Your task to perform on an android device: move a message to another label in the gmail app Image 0: 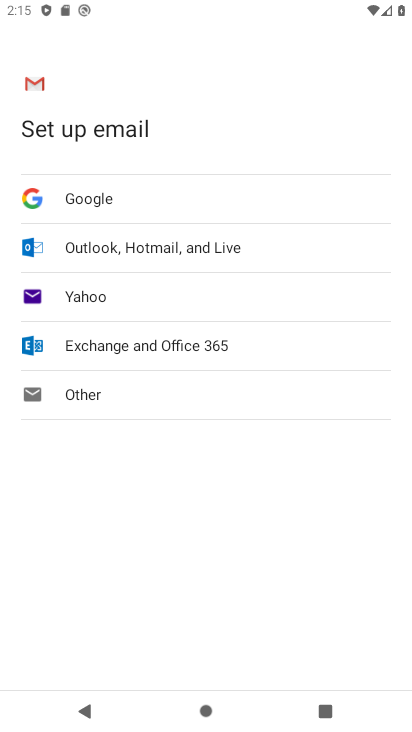
Step 0: press back button
Your task to perform on an android device: move a message to another label in the gmail app Image 1: 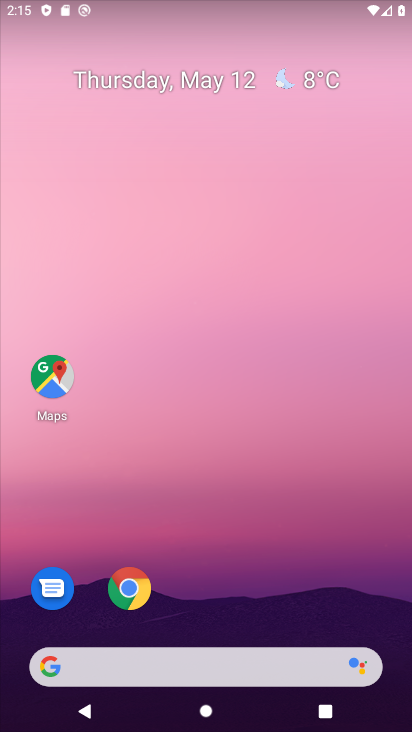
Step 1: drag from (245, 523) to (219, 2)
Your task to perform on an android device: move a message to another label in the gmail app Image 2: 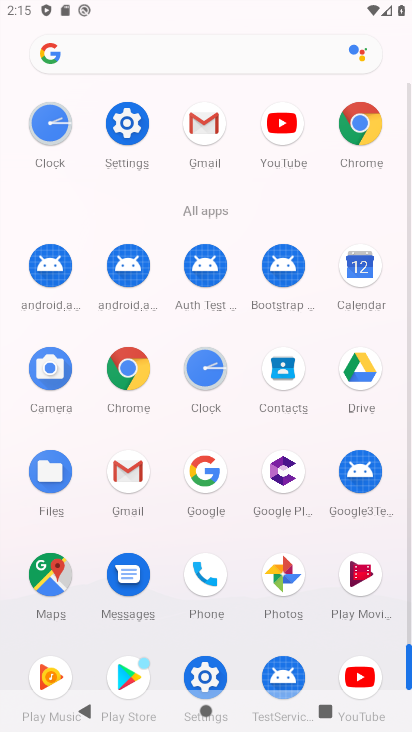
Step 2: drag from (14, 499) to (16, 227)
Your task to perform on an android device: move a message to another label in the gmail app Image 3: 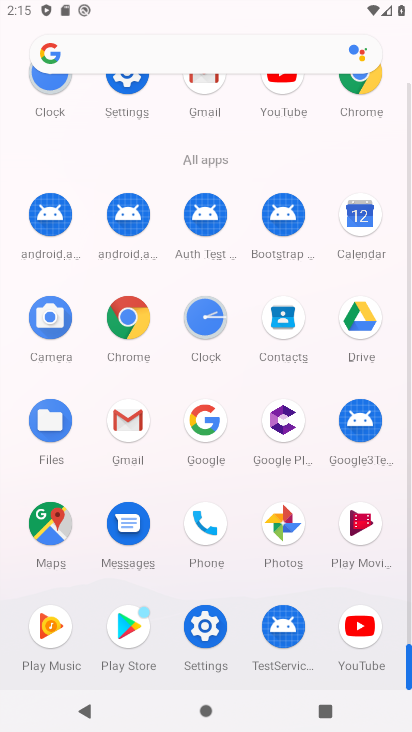
Step 3: drag from (2, 463) to (0, 149)
Your task to perform on an android device: move a message to another label in the gmail app Image 4: 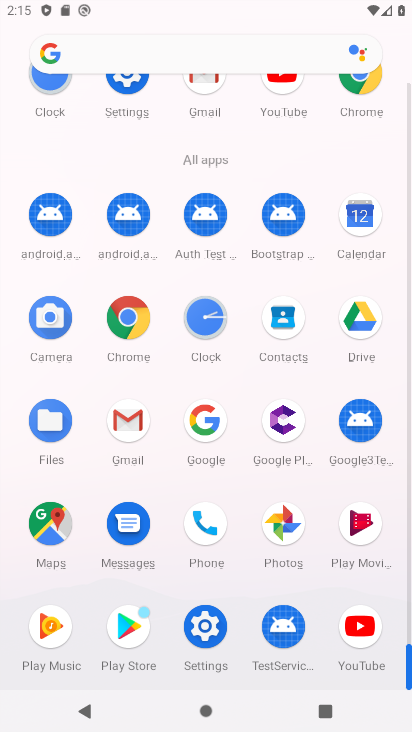
Step 4: click (129, 415)
Your task to perform on an android device: move a message to another label in the gmail app Image 5: 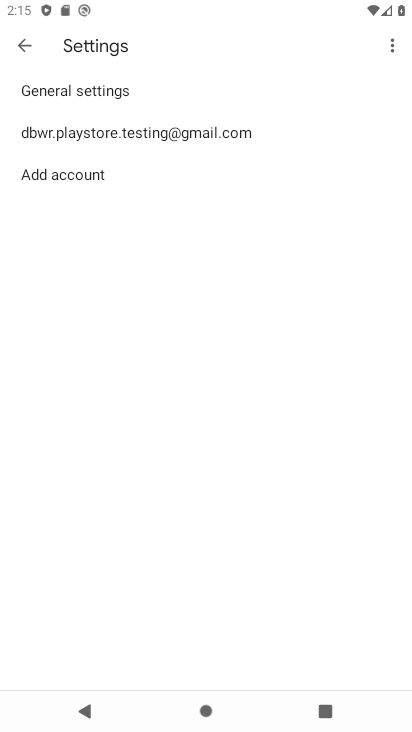
Step 5: click (14, 35)
Your task to perform on an android device: move a message to another label in the gmail app Image 6: 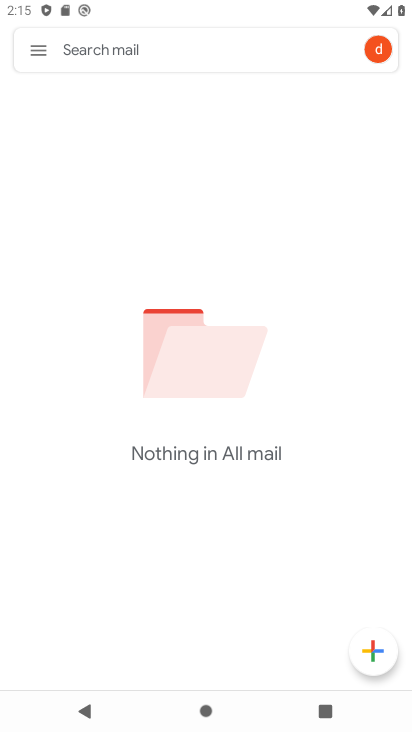
Step 6: click (31, 48)
Your task to perform on an android device: move a message to another label in the gmail app Image 7: 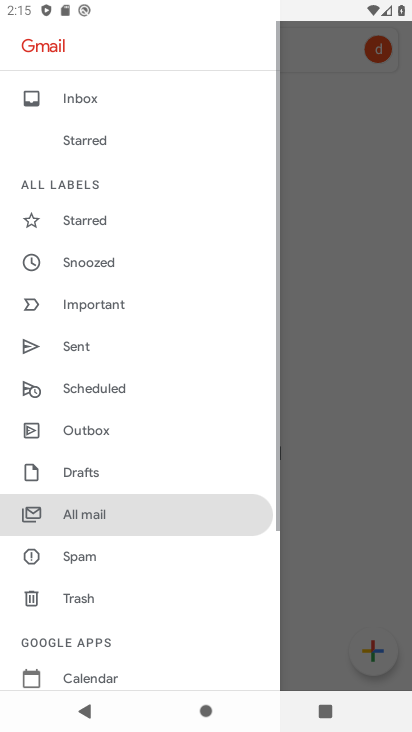
Step 7: drag from (140, 241) to (158, 568)
Your task to perform on an android device: move a message to another label in the gmail app Image 8: 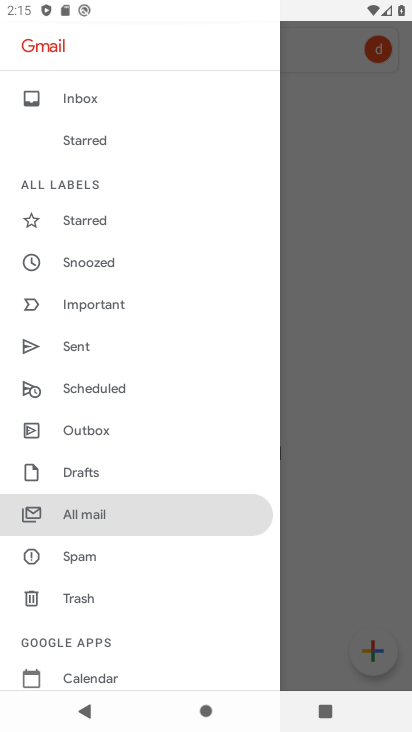
Step 8: click (79, 96)
Your task to perform on an android device: move a message to another label in the gmail app Image 9: 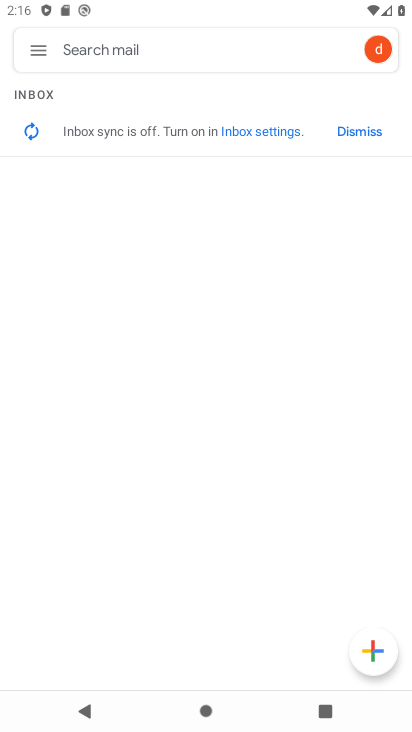
Step 9: click (39, 58)
Your task to perform on an android device: move a message to another label in the gmail app Image 10: 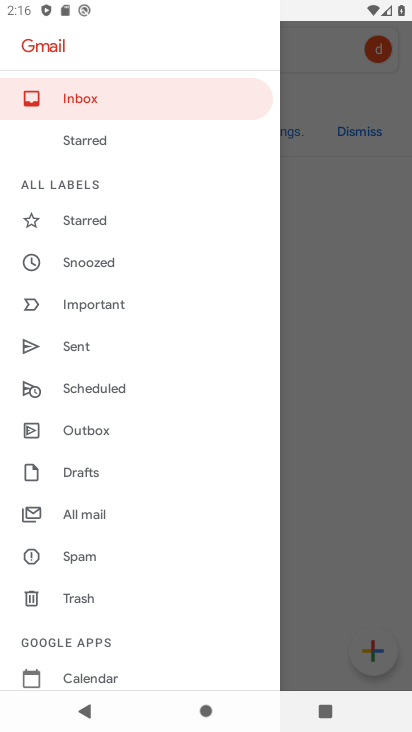
Step 10: click (111, 265)
Your task to perform on an android device: move a message to another label in the gmail app Image 11: 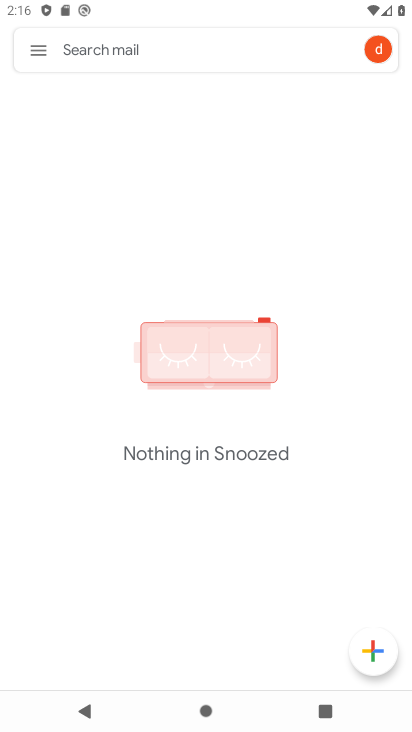
Step 11: click (41, 53)
Your task to perform on an android device: move a message to another label in the gmail app Image 12: 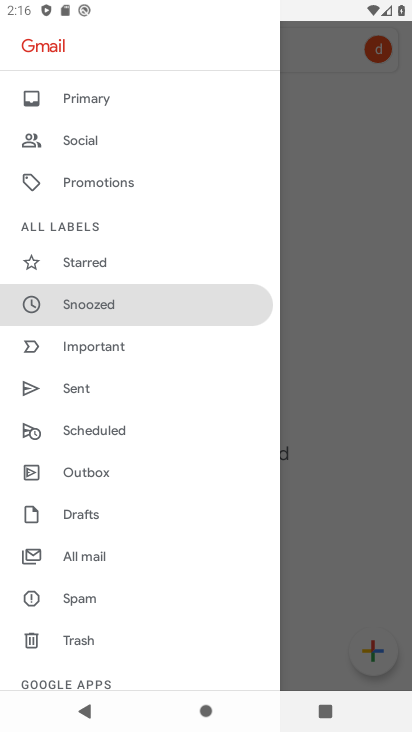
Step 12: click (120, 347)
Your task to perform on an android device: move a message to another label in the gmail app Image 13: 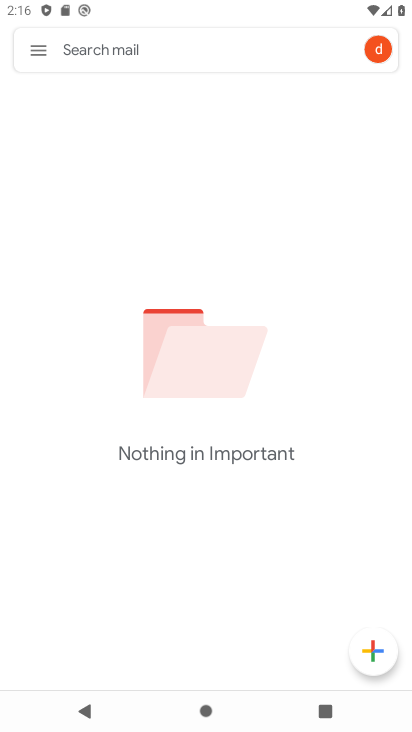
Step 13: click (45, 58)
Your task to perform on an android device: move a message to another label in the gmail app Image 14: 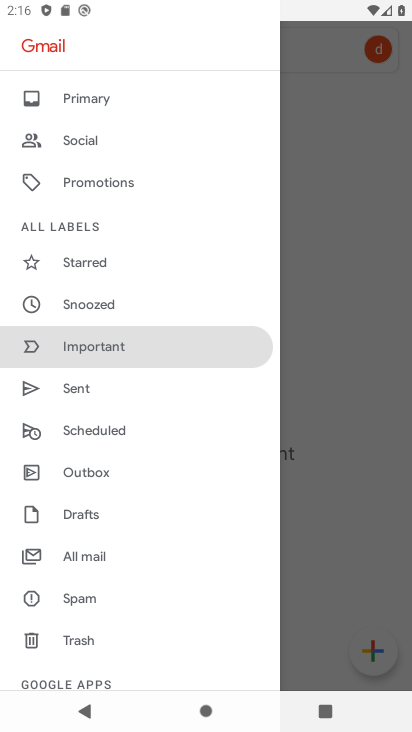
Step 14: drag from (141, 157) to (163, 532)
Your task to perform on an android device: move a message to another label in the gmail app Image 15: 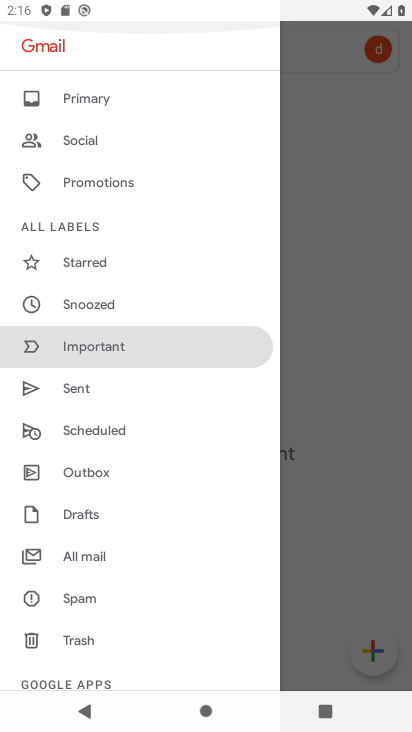
Step 15: drag from (155, 516) to (173, 78)
Your task to perform on an android device: move a message to another label in the gmail app Image 16: 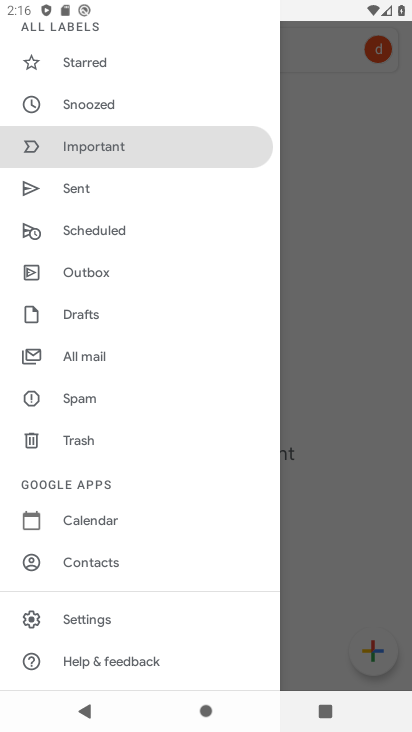
Step 16: click (105, 350)
Your task to perform on an android device: move a message to another label in the gmail app Image 17: 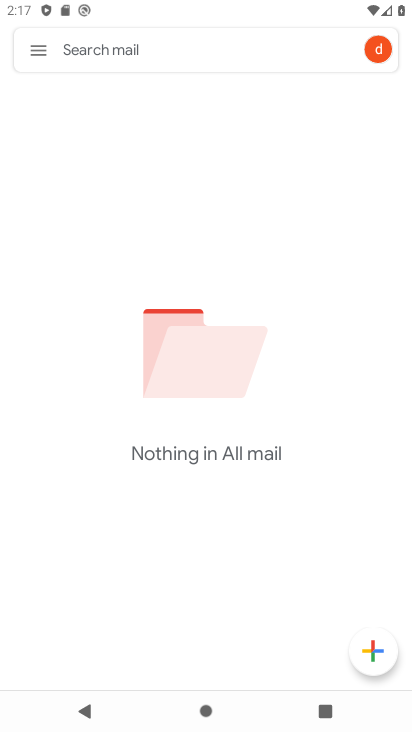
Step 17: click (42, 47)
Your task to perform on an android device: move a message to another label in the gmail app Image 18: 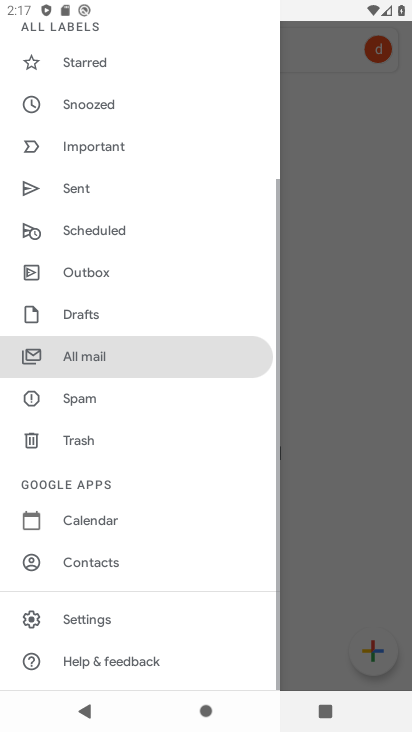
Step 18: drag from (165, 211) to (179, 466)
Your task to perform on an android device: move a message to another label in the gmail app Image 19: 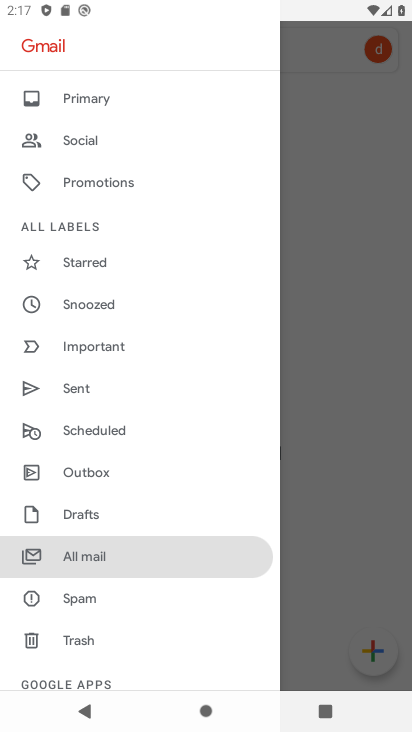
Step 19: drag from (138, 179) to (150, 544)
Your task to perform on an android device: move a message to another label in the gmail app Image 20: 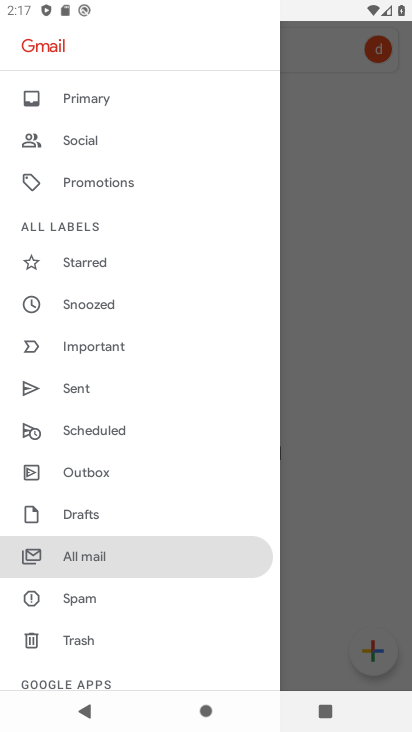
Step 20: click (117, 173)
Your task to perform on an android device: move a message to another label in the gmail app Image 21: 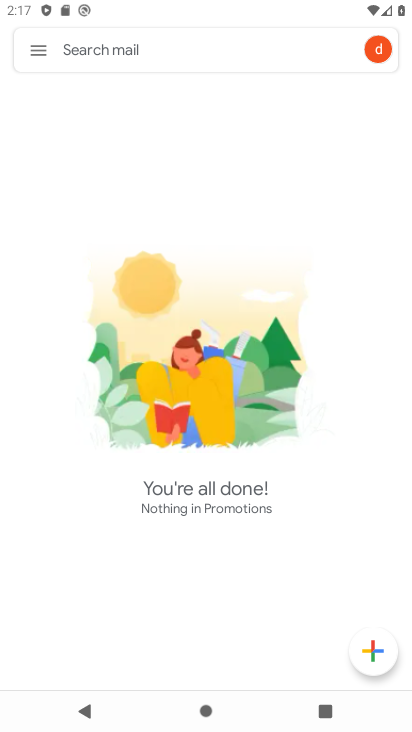
Step 21: click (51, 49)
Your task to perform on an android device: move a message to another label in the gmail app Image 22: 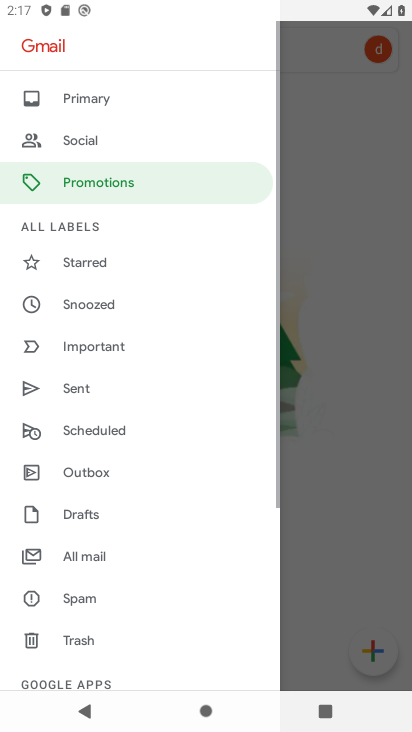
Step 22: drag from (175, 130) to (176, 529)
Your task to perform on an android device: move a message to another label in the gmail app Image 23: 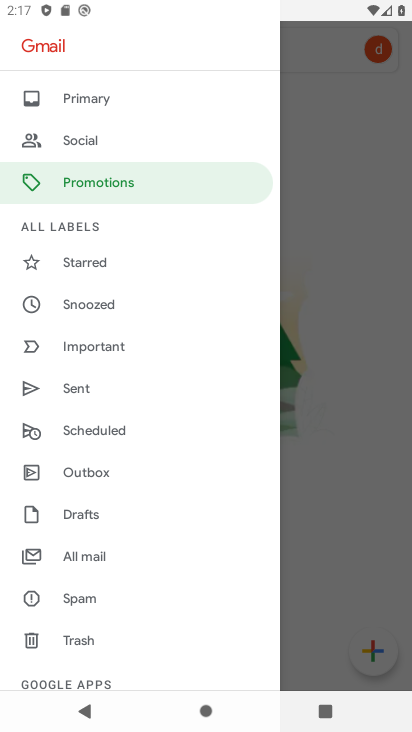
Step 23: drag from (153, 475) to (181, 126)
Your task to perform on an android device: move a message to another label in the gmail app Image 24: 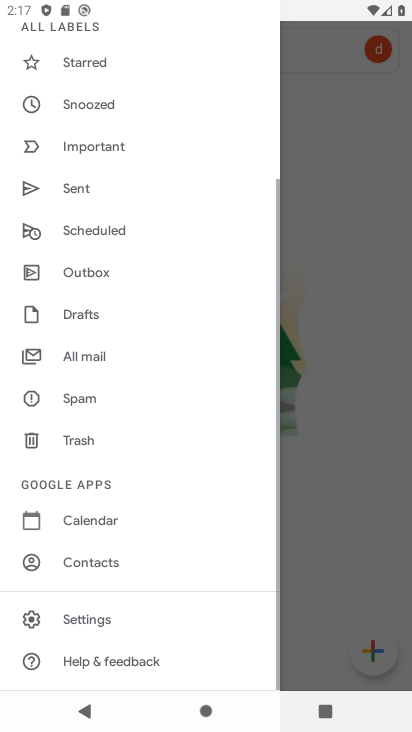
Step 24: click (101, 354)
Your task to perform on an android device: move a message to another label in the gmail app Image 25: 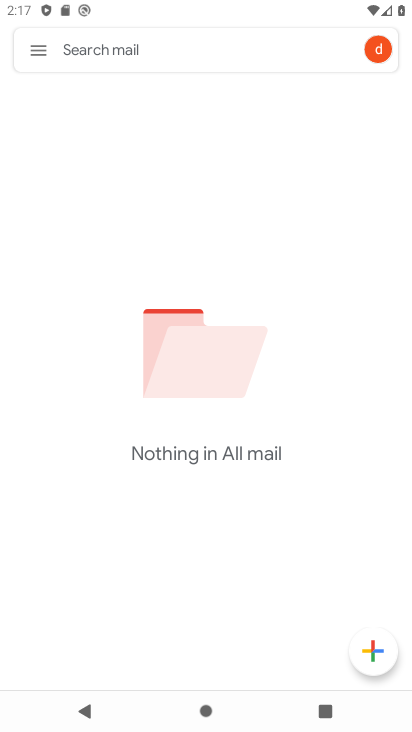
Step 25: task complete